Your task to perform on an android device: check google app version Image 0: 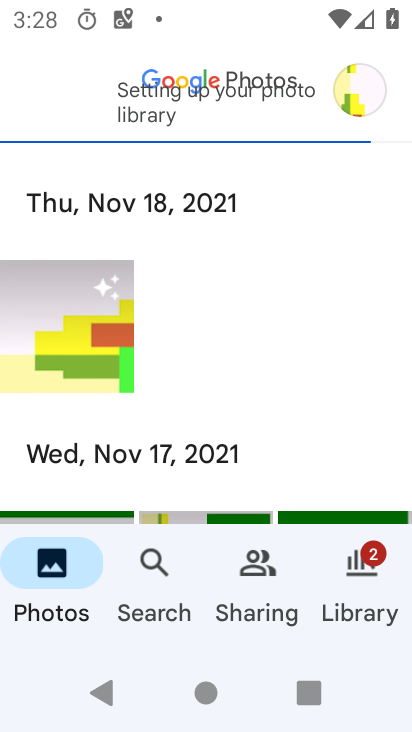
Step 0: press home button
Your task to perform on an android device: check google app version Image 1: 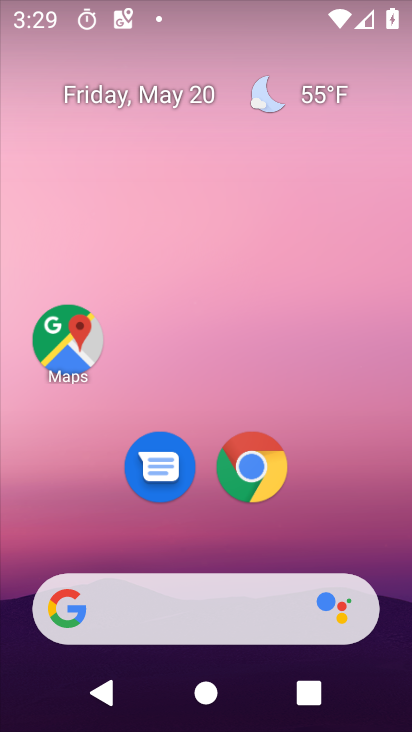
Step 1: drag from (223, 486) to (191, 0)
Your task to perform on an android device: check google app version Image 2: 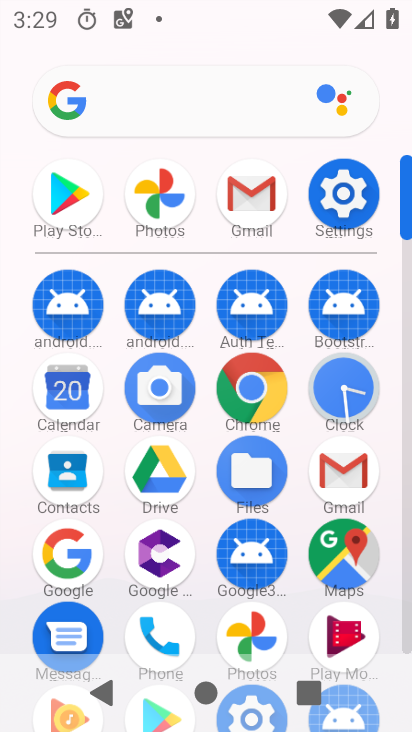
Step 2: click (128, 101)
Your task to perform on an android device: check google app version Image 3: 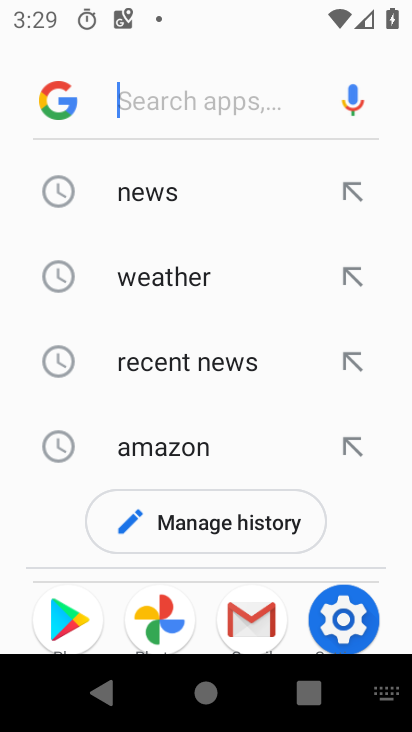
Step 3: click (61, 113)
Your task to perform on an android device: check google app version Image 4: 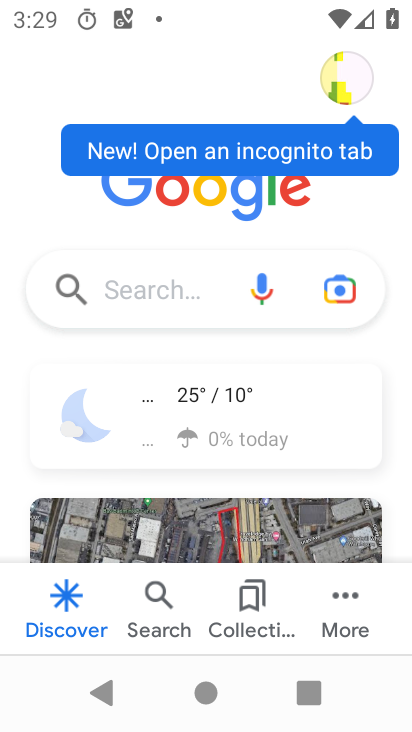
Step 4: click (350, 604)
Your task to perform on an android device: check google app version Image 5: 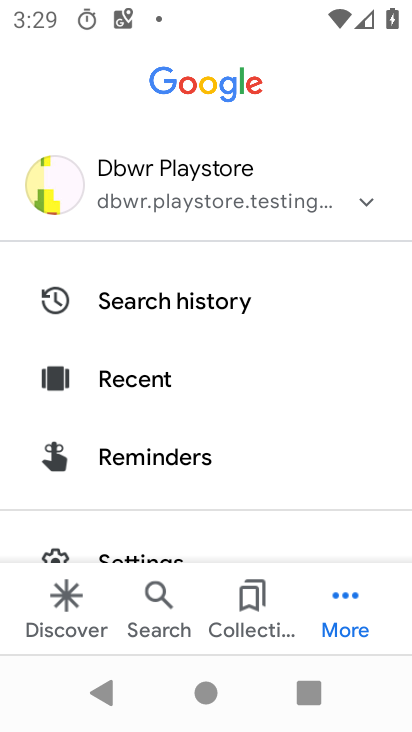
Step 5: drag from (150, 508) to (156, 205)
Your task to perform on an android device: check google app version Image 6: 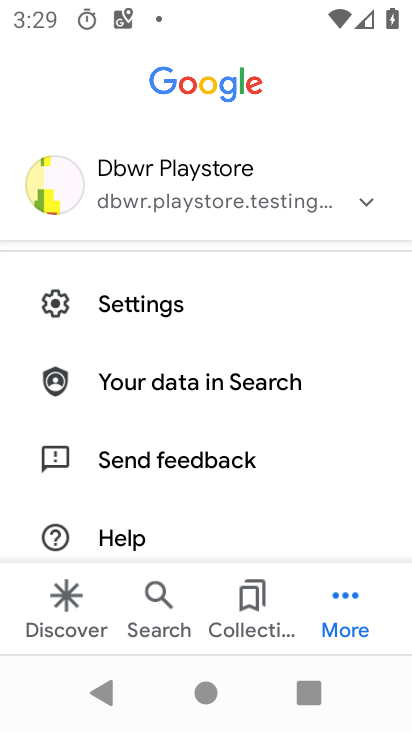
Step 6: click (178, 301)
Your task to perform on an android device: check google app version Image 7: 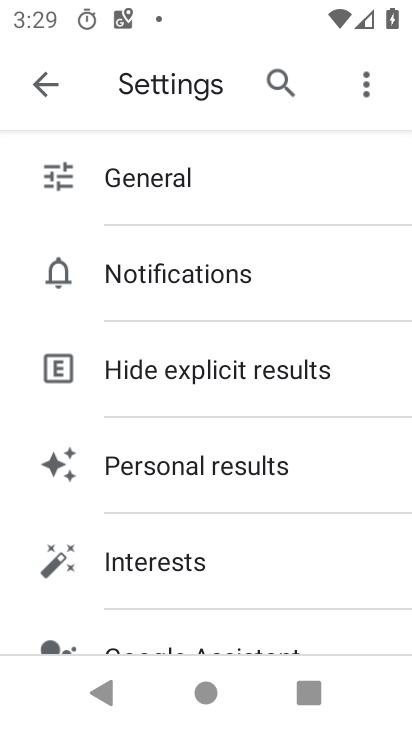
Step 7: drag from (194, 578) to (175, 196)
Your task to perform on an android device: check google app version Image 8: 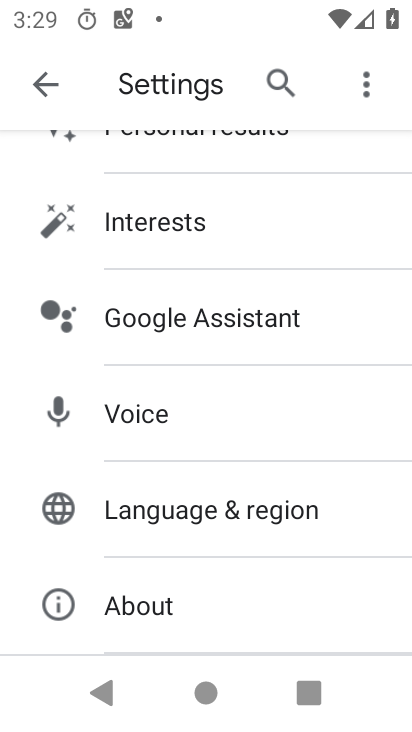
Step 8: drag from (144, 591) to (163, 297)
Your task to perform on an android device: check google app version Image 9: 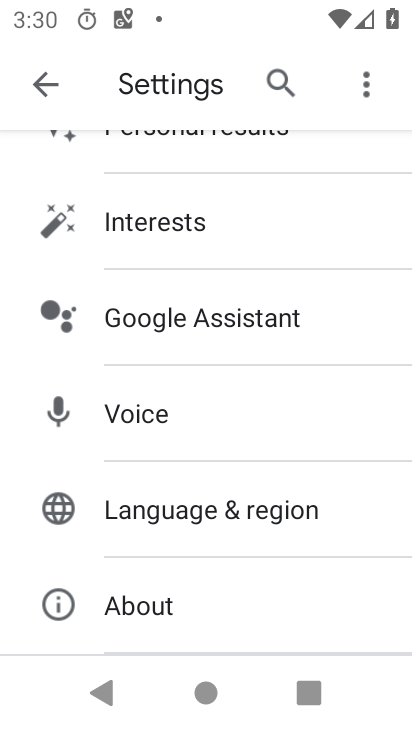
Step 9: click (151, 619)
Your task to perform on an android device: check google app version Image 10: 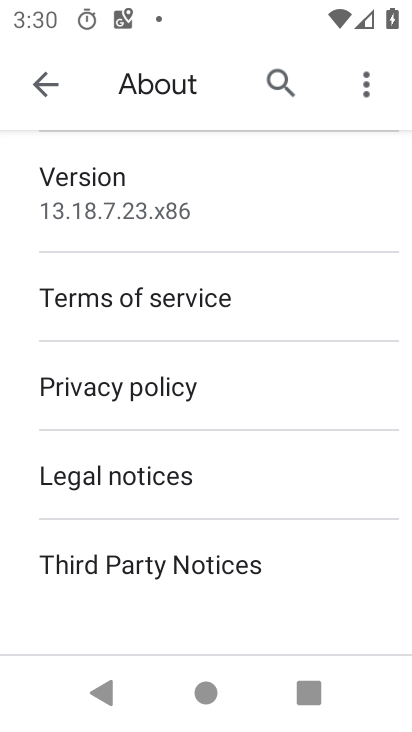
Step 10: click (137, 208)
Your task to perform on an android device: check google app version Image 11: 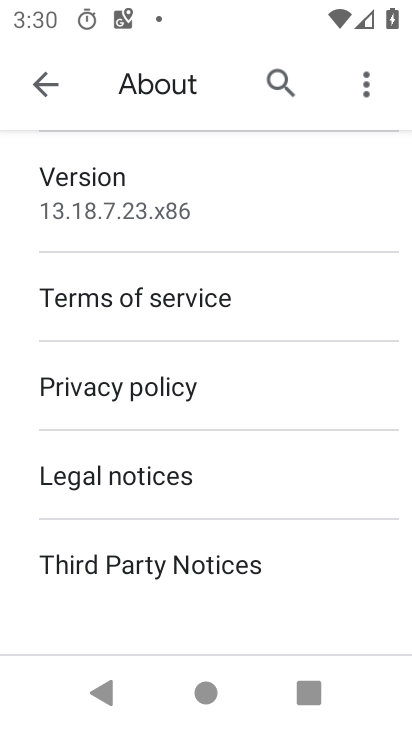
Step 11: click (145, 197)
Your task to perform on an android device: check google app version Image 12: 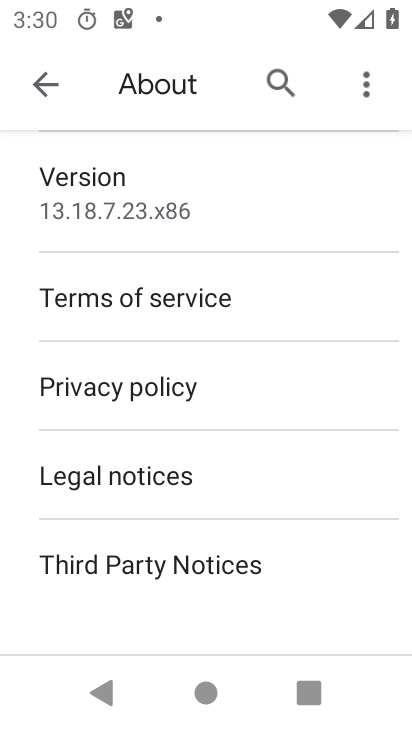
Step 12: task complete